Your task to perform on an android device: Go to internet settings Image 0: 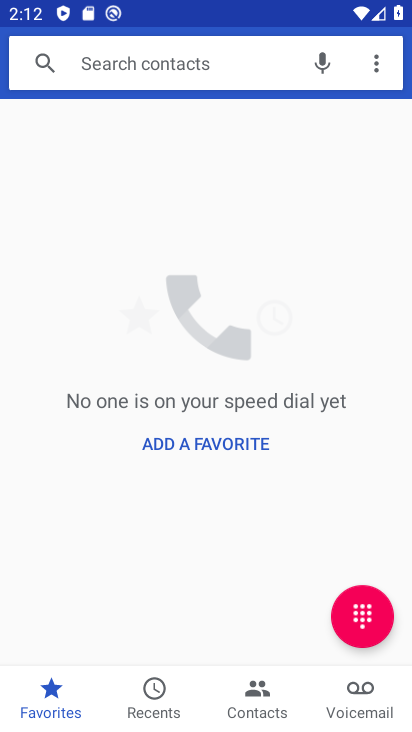
Step 0: press home button
Your task to perform on an android device: Go to internet settings Image 1: 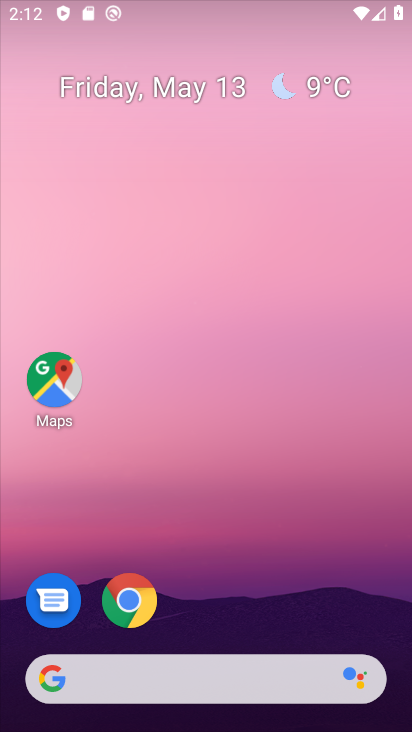
Step 1: drag from (250, 526) to (233, 61)
Your task to perform on an android device: Go to internet settings Image 2: 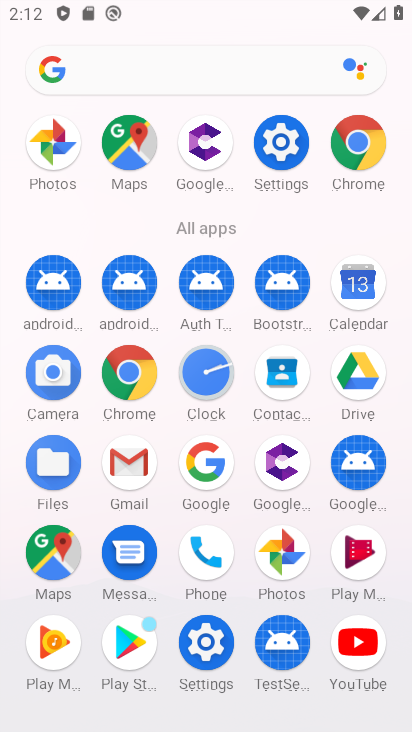
Step 2: click (269, 138)
Your task to perform on an android device: Go to internet settings Image 3: 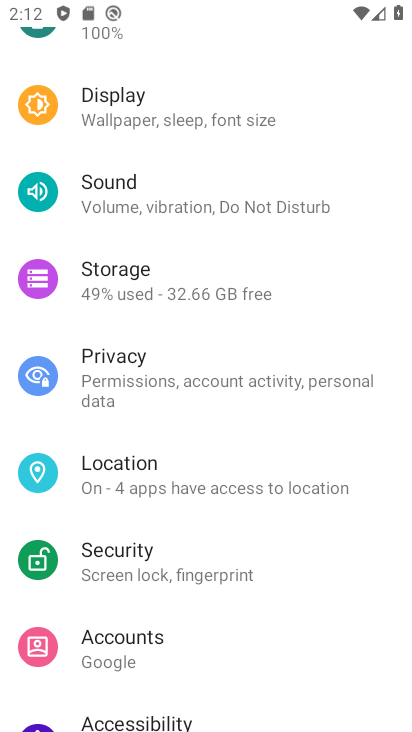
Step 3: drag from (246, 130) to (247, 536)
Your task to perform on an android device: Go to internet settings Image 4: 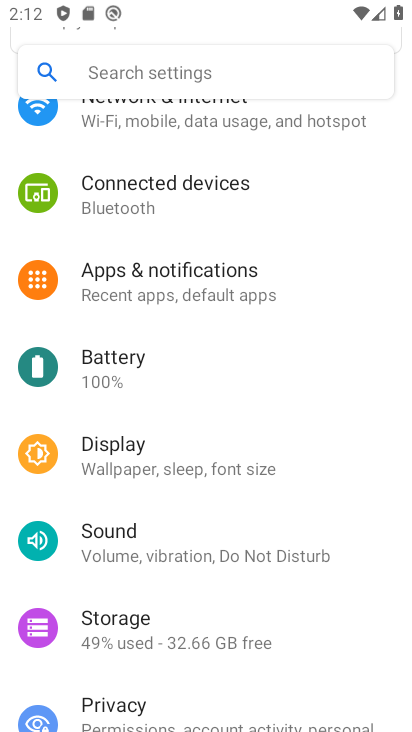
Step 4: drag from (211, 164) to (209, 513)
Your task to perform on an android device: Go to internet settings Image 5: 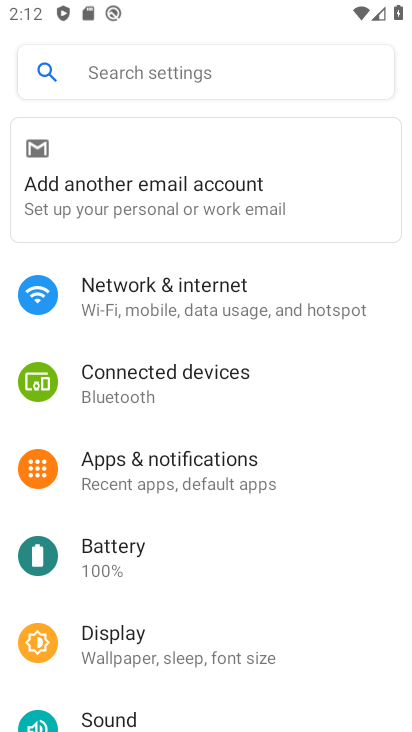
Step 5: click (187, 309)
Your task to perform on an android device: Go to internet settings Image 6: 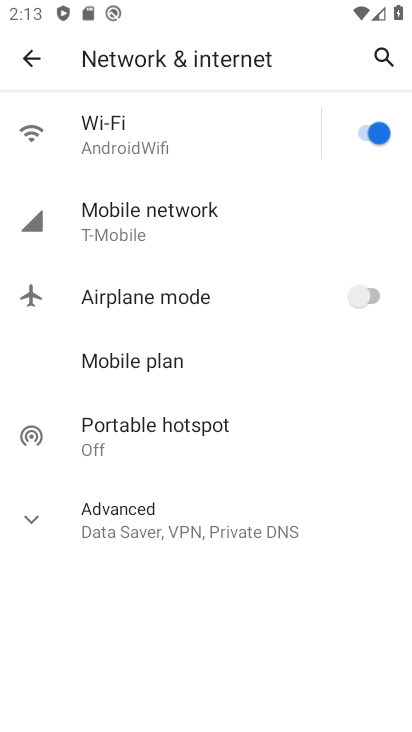
Step 6: task complete